Your task to perform on an android device: Go to Maps Image 0: 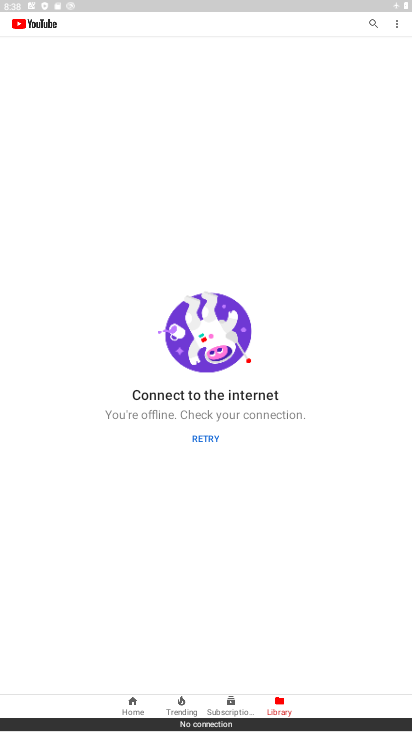
Step 0: press home button
Your task to perform on an android device: Go to Maps Image 1: 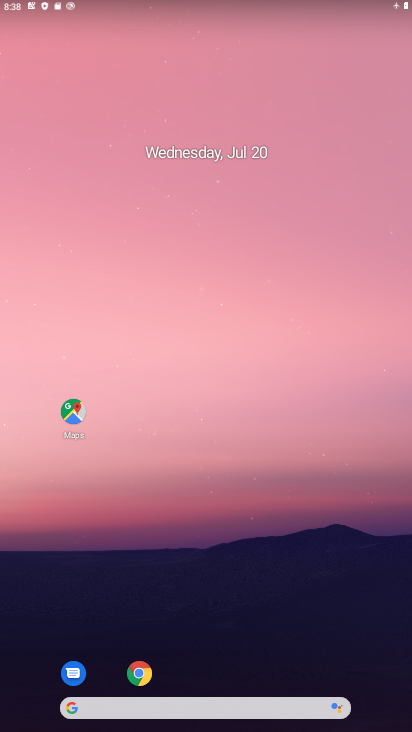
Step 1: drag from (189, 680) to (226, 351)
Your task to perform on an android device: Go to Maps Image 2: 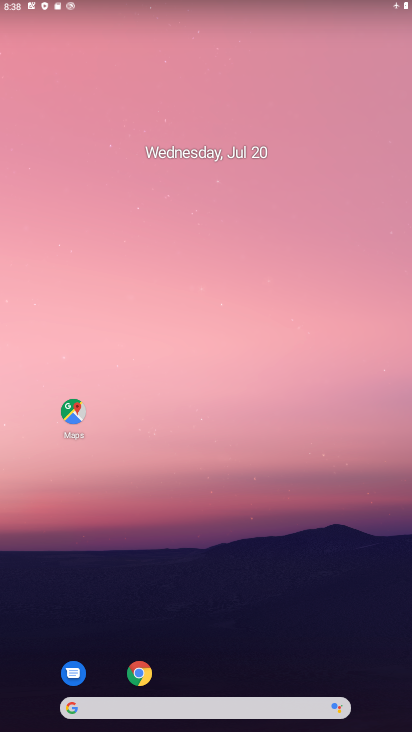
Step 2: drag from (230, 625) to (202, 211)
Your task to perform on an android device: Go to Maps Image 3: 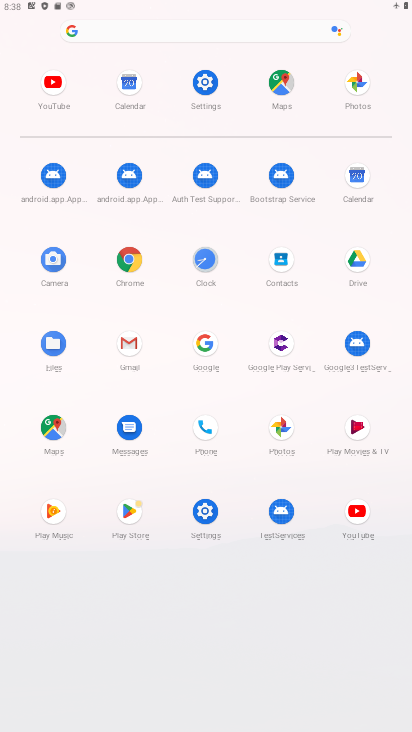
Step 3: click (68, 426)
Your task to perform on an android device: Go to Maps Image 4: 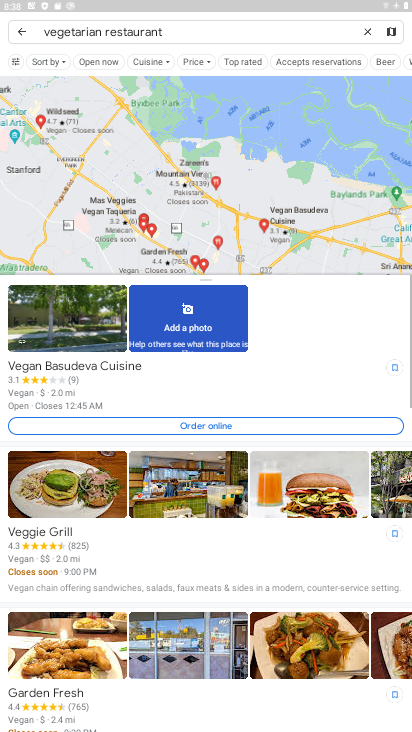
Step 4: task complete